Your task to perform on an android device: toggle improve location accuracy Image 0: 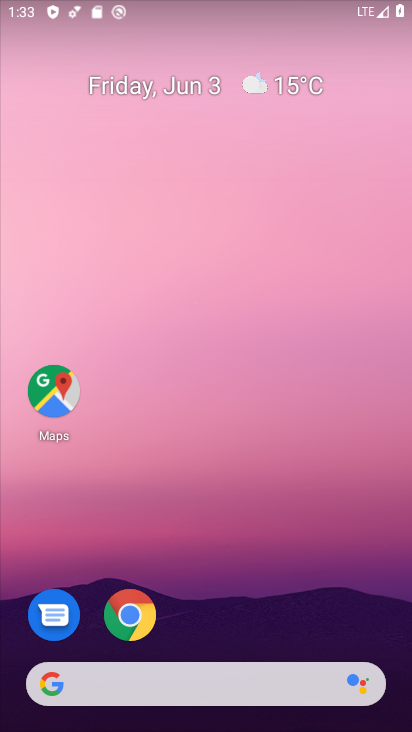
Step 0: drag from (198, 576) to (221, 150)
Your task to perform on an android device: toggle improve location accuracy Image 1: 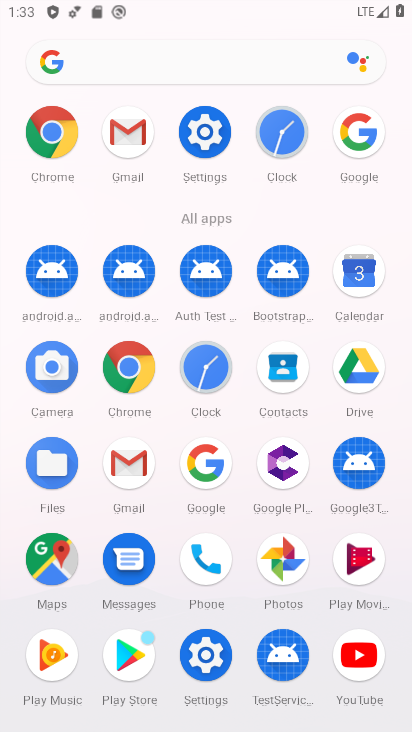
Step 1: click (202, 149)
Your task to perform on an android device: toggle improve location accuracy Image 2: 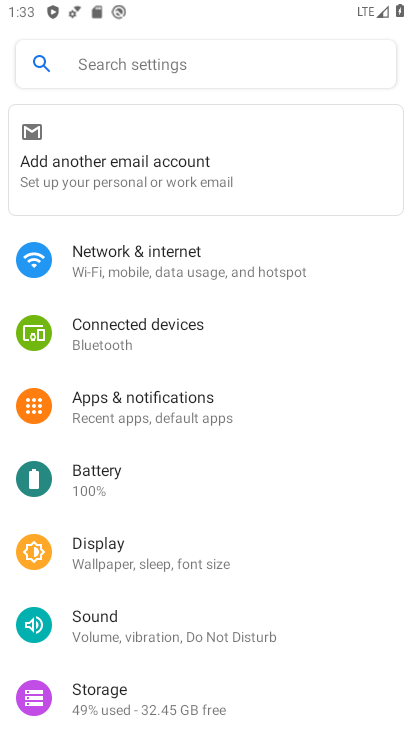
Step 2: drag from (159, 642) to (313, 6)
Your task to perform on an android device: toggle improve location accuracy Image 3: 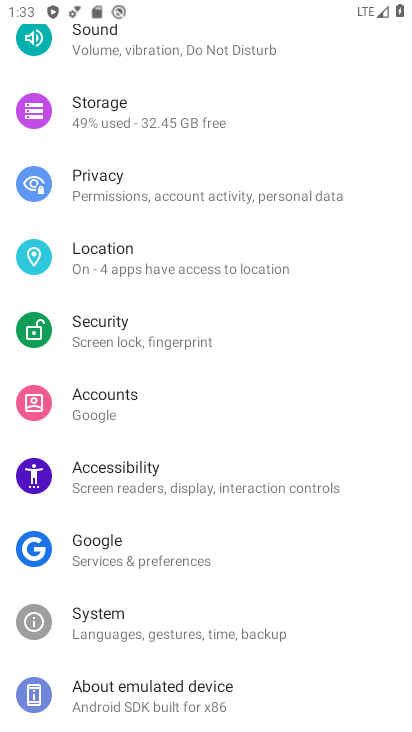
Step 3: click (181, 270)
Your task to perform on an android device: toggle improve location accuracy Image 4: 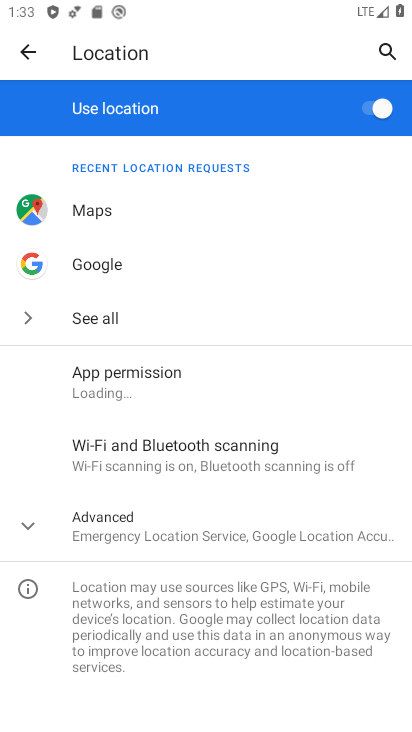
Step 4: drag from (184, 622) to (274, 243)
Your task to perform on an android device: toggle improve location accuracy Image 5: 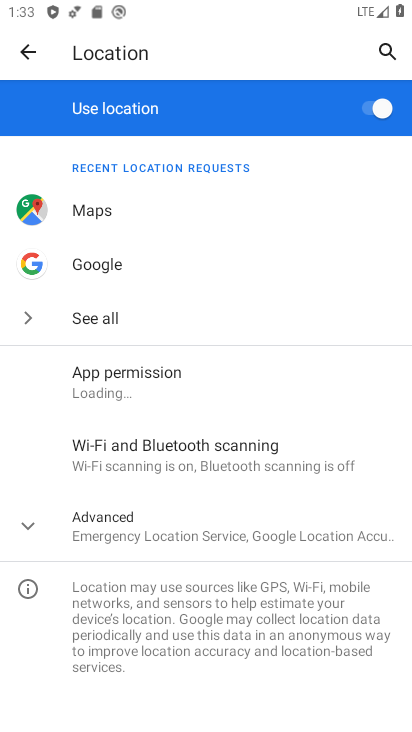
Step 5: click (183, 549)
Your task to perform on an android device: toggle improve location accuracy Image 6: 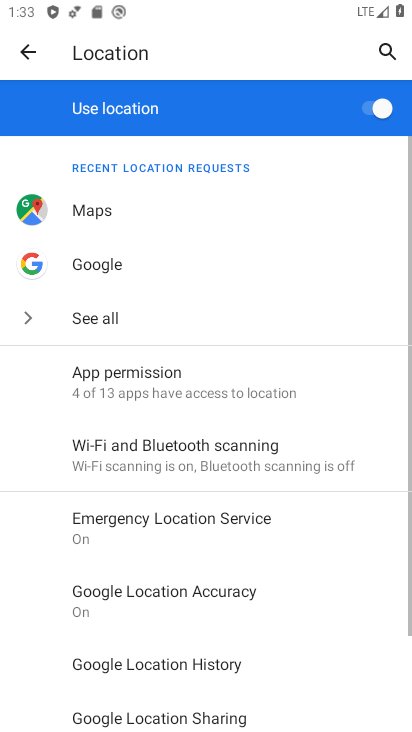
Step 6: click (226, 606)
Your task to perform on an android device: toggle improve location accuracy Image 7: 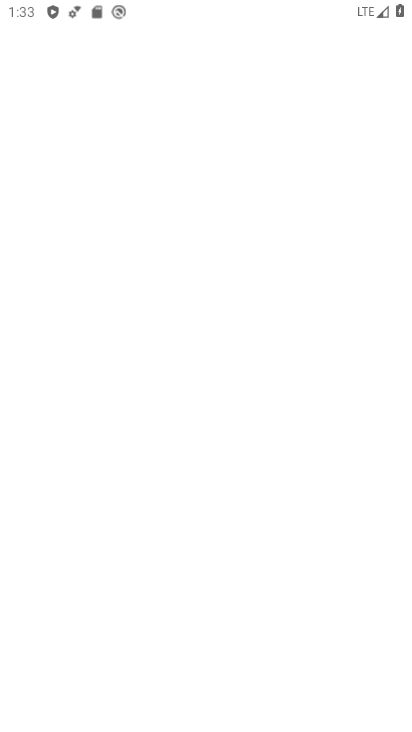
Step 7: drag from (285, 618) to (334, 189)
Your task to perform on an android device: toggle improve location accuracy Image 8: 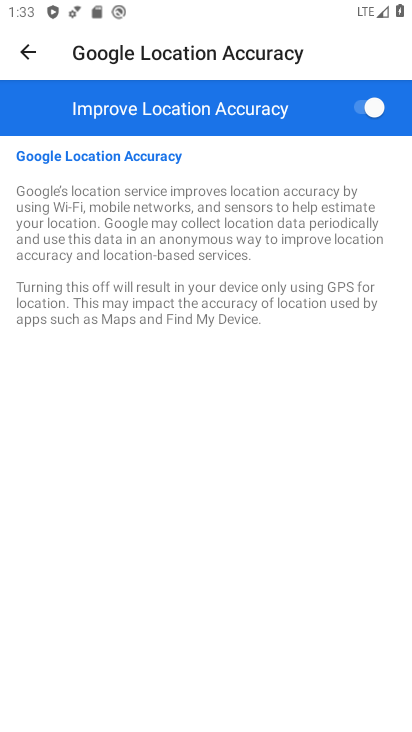
Step 8: drag from (204, 670) to (204, 364)
Your task to perform on an android device: toggle improve location accuracy Image 9: 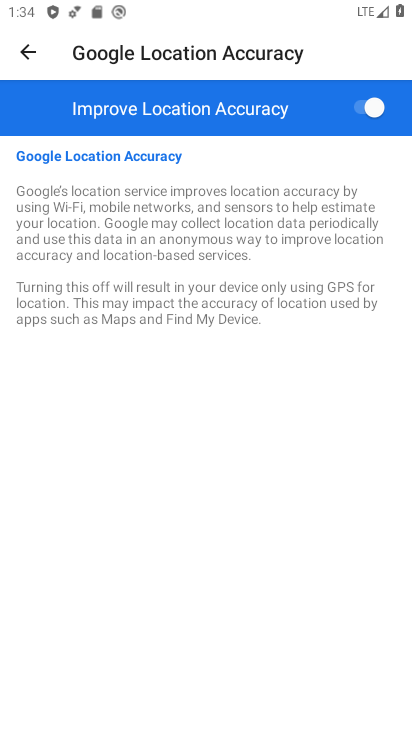
Step 9: drag from (210, 320) to (271, 722)
Your task to perform on an android device: toggle improve location accuracy Image 10: 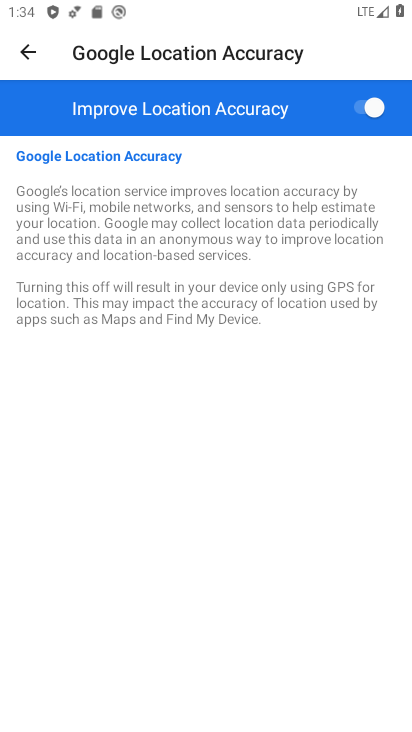
Step 10: click (336, 100)
Your task to perform on an android device: toggle improve location accuracy Image 11: 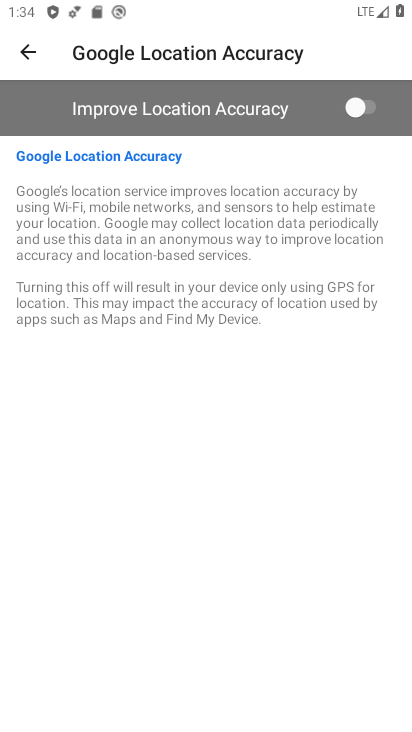
Step 11: task complete